Your task to perform on an android device: see creations saved in the google photos Image 0: 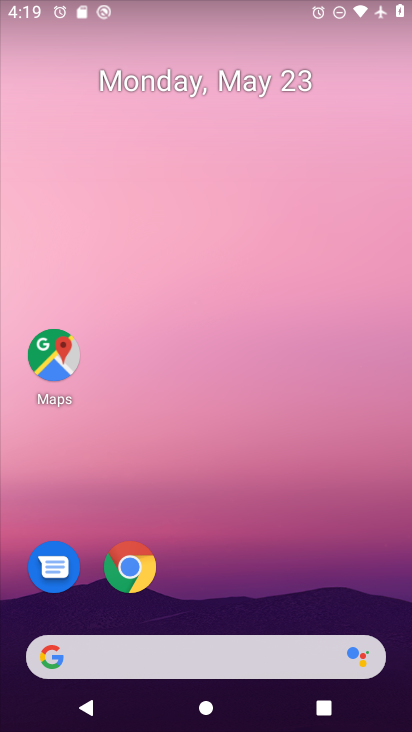
Step 0: drag from (388, 615) to (332, 77)
Your task to perform on an android device: see creations saved in the google photos Image 1: 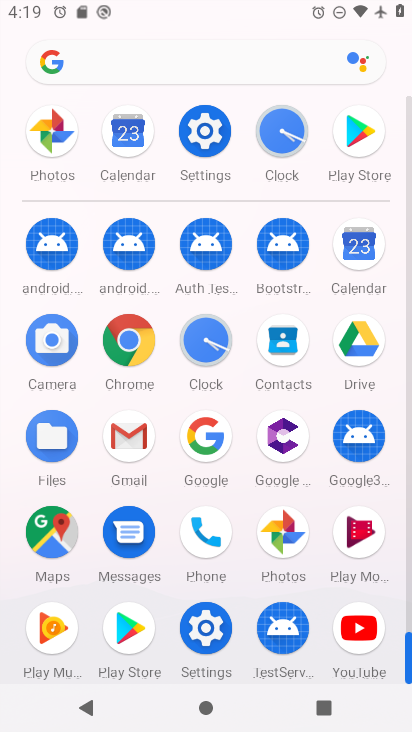
Step 1: click (278, 528)
Your task to perform on an android device: see creations saved in the google photos Image 2: 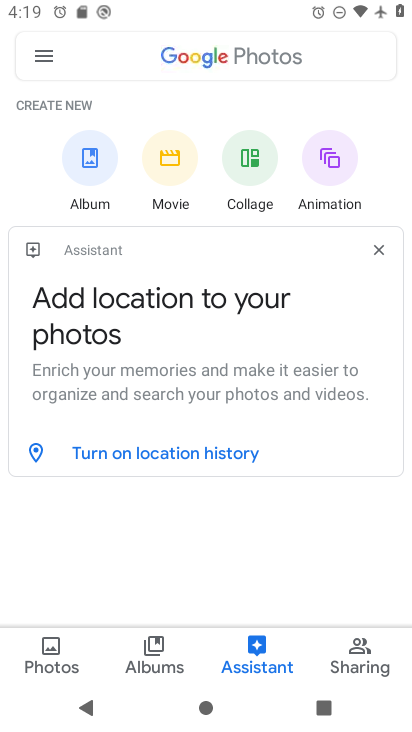
Step 2: click (31, 650)
Your task to perform on an android device: see creations saved in the google photos Image 3: 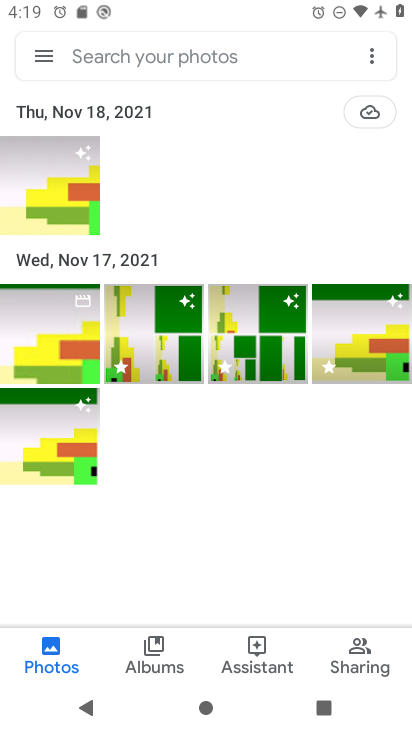
Step 3: task complete